Your task to perform on an android device: Show the shopping cart on target. Search for "apple airpods pro" on target, select the first entry, and add it to the cart. Image 0: 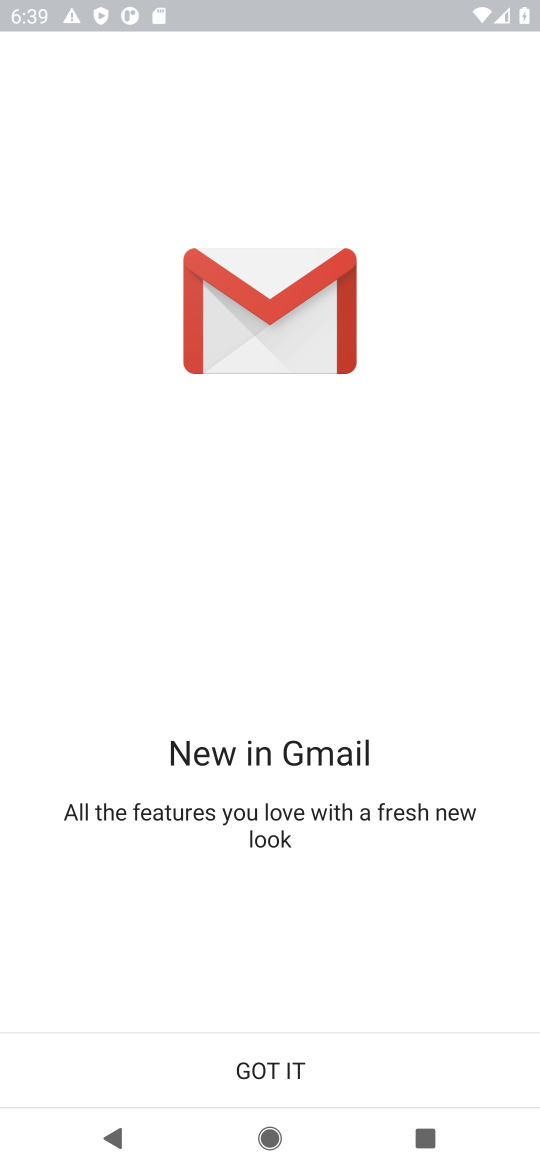
Step 0: press home button
Your task to perform on an android device: Show the shopping cart on target. Search for "apple airpods pro" on target, select the first entry, and add it to the cart. Image 1: 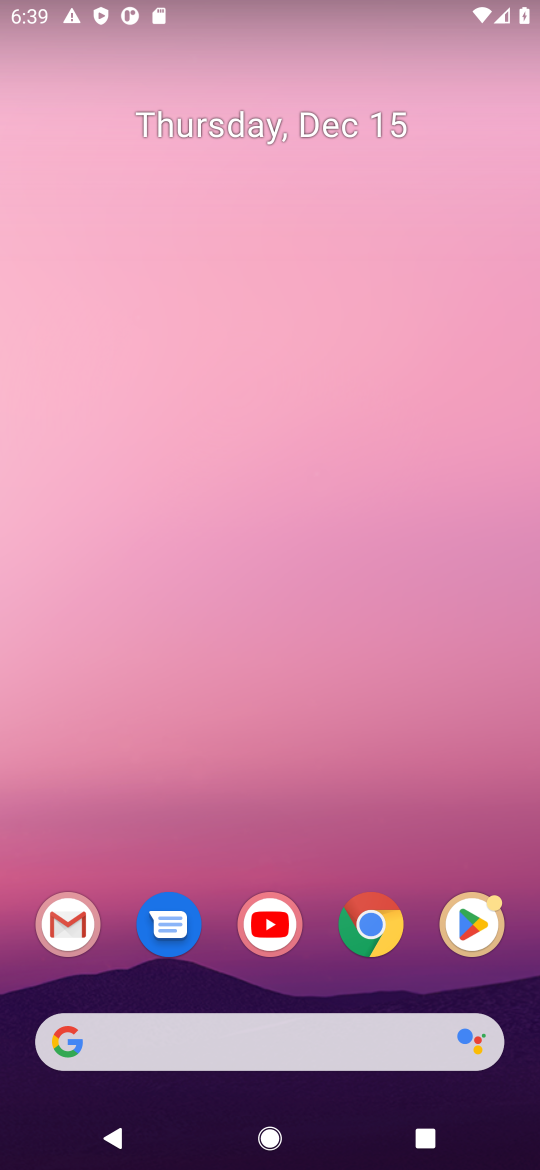
Step 1: click (363, 922)
Your task to perform on an android device: Show the shopping cart on target. Search for "apple airpods pro" on target, select the first entry, and add it to the cart. Image 2: 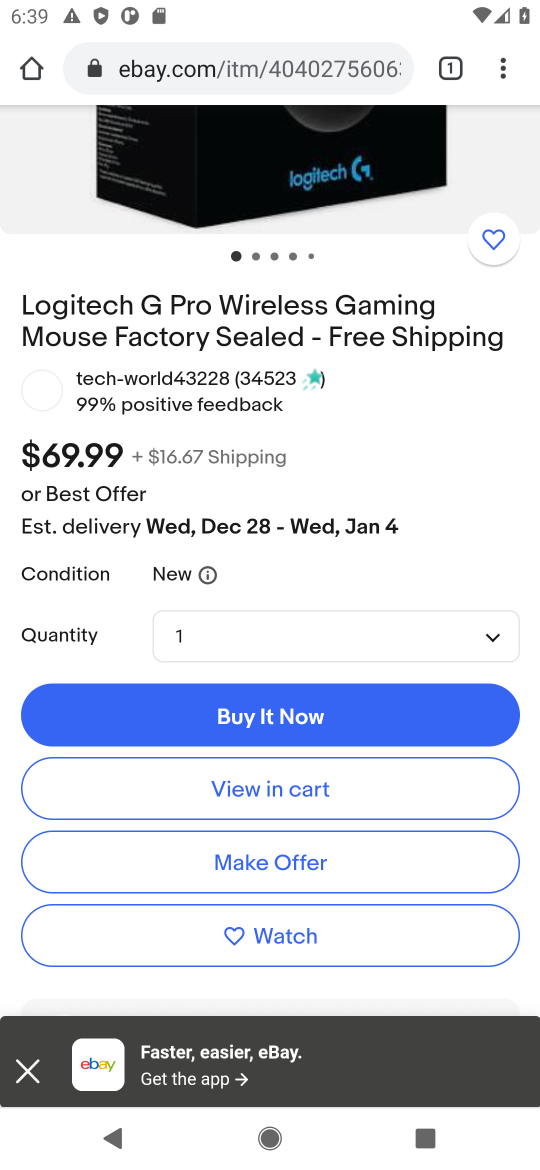
Step 2: click (279, 63)
Your task to perform on an android device: Show the shopping cart on target. Search for "apple airpods pro" on target, select the first entry, and add it to the cart. Image 3: 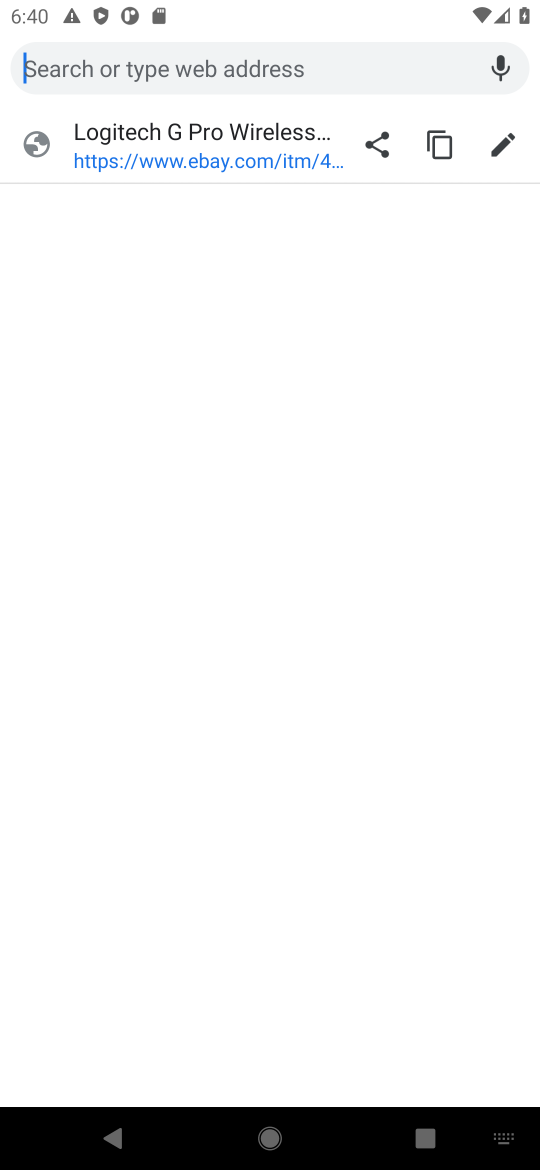
Step 3: type "target"
Your task to perform on an android device: Show the shopping cart on target. Search for "apple airpods pro" on target, select the first entry, and add it to the cart. Image 4: 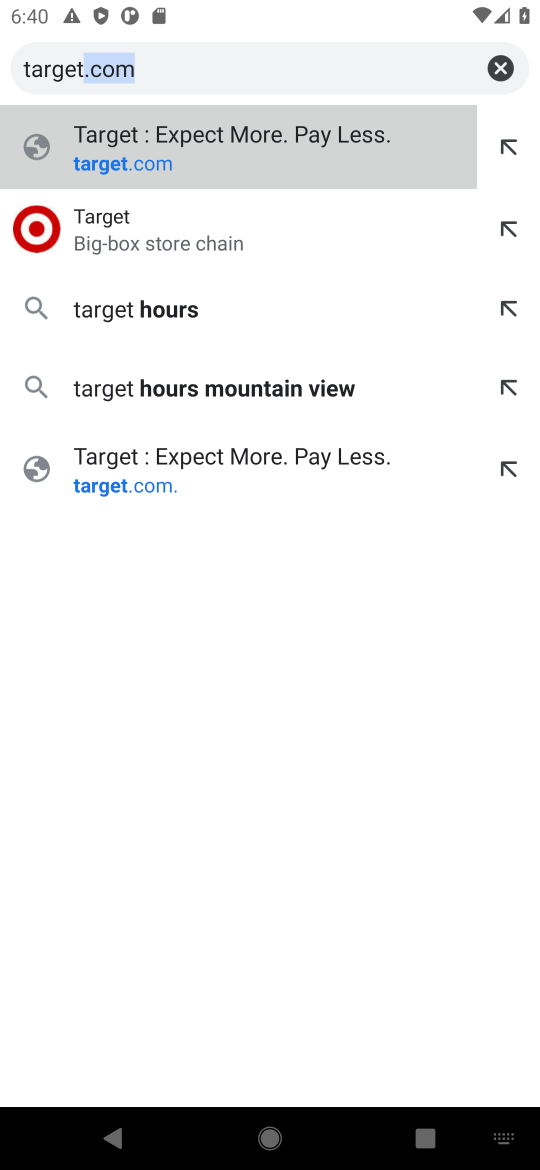
Step 4: click (141, 222)
Your task to perform on an android device: Show the shopping cart on target. Search for "apple airpods pro" on target, select the first entry, and add it to the cart. Image 5: 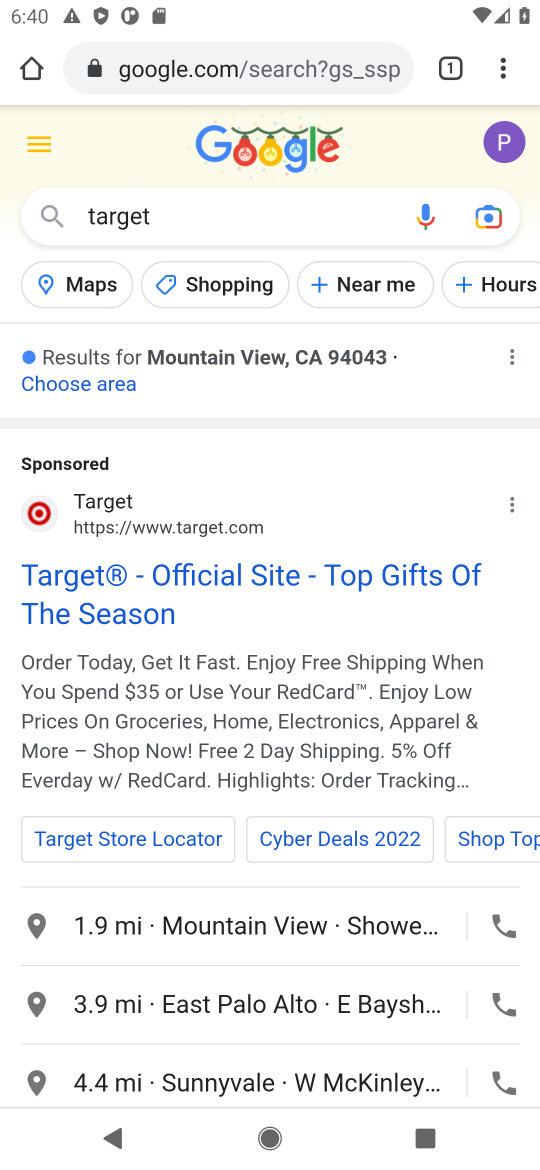
Step 5: click (300, 583)
Your task to perform on an android device: Show the shopping cart on target. Search for "apple airpods pro" on target, select the first entry, and add it to the cart. Image 6: 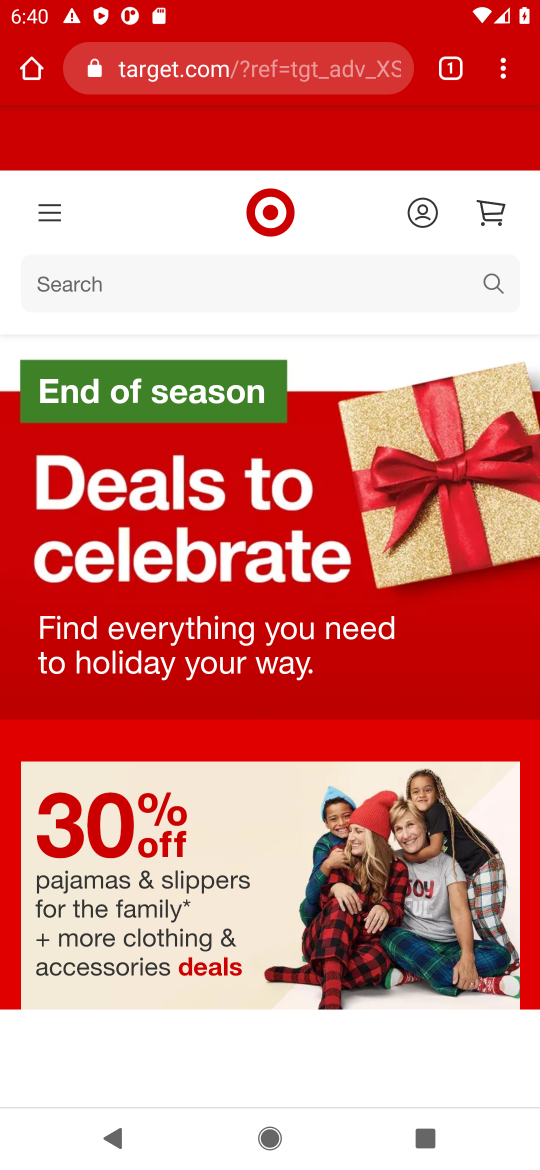
Step 6: click (495, 221)
Your task to perform on an android device: Show the shopping cart on target. Search for "apple airpods pro" on target, select the first entry, and add it to the cart. Image 7: 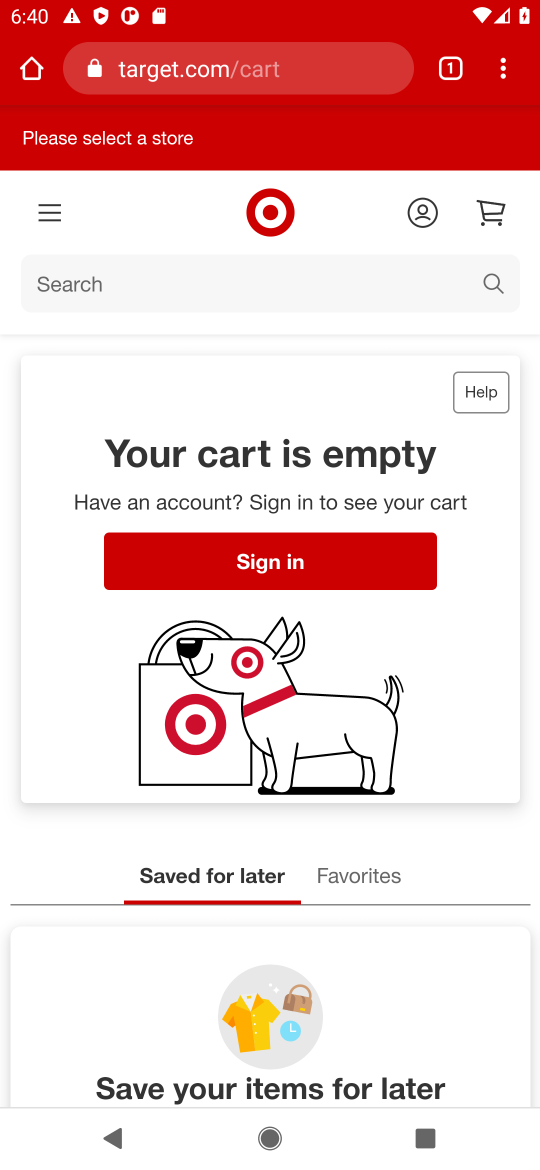
Step 7: click (246, 273)
Your task to perform on an android device: Show the shopping cart on target. Search for "apple airpods pro" on target, select the first entry, and add it to the cart. Image 8: 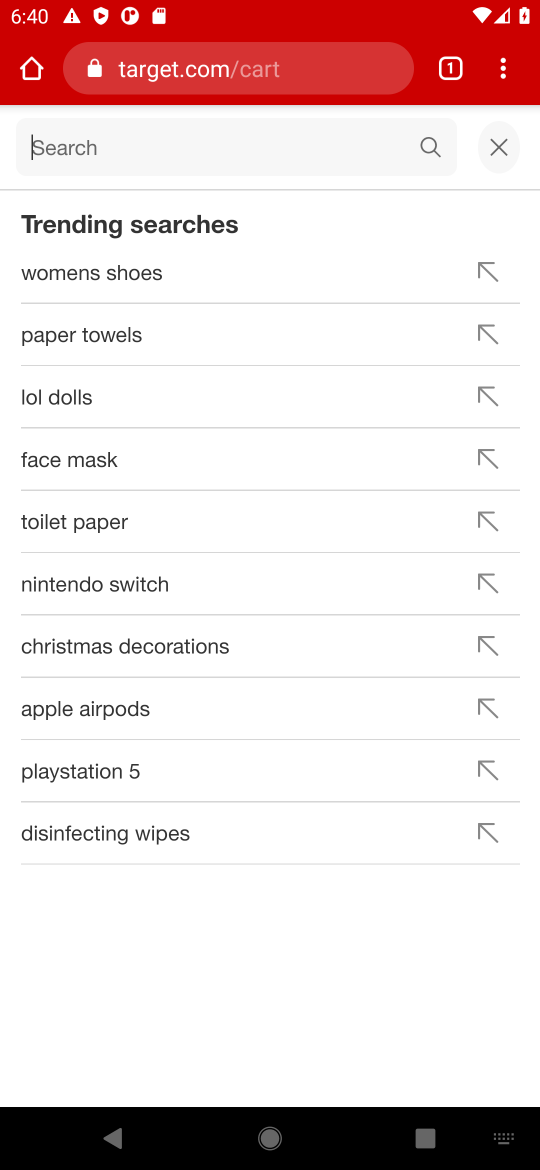
Step 8: type "apple airpods pro"
Your task to perform on an android device: Show the shopping cart on target. Search for "apple airpods pro" on target, select the first entry, and add it to the cart. Image 9: 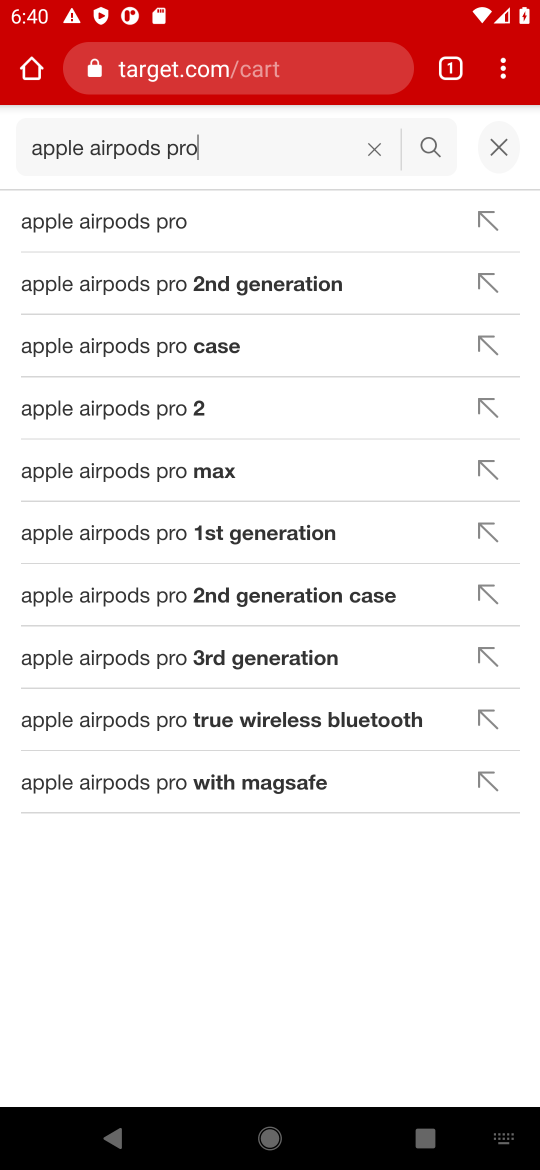
Step 9: click (427, 138)
Your task to perform on an android device: Show the shopping cart on target. Search for "apple airpods pro" on target, select the first entry, and add it to the cart. Image 10: 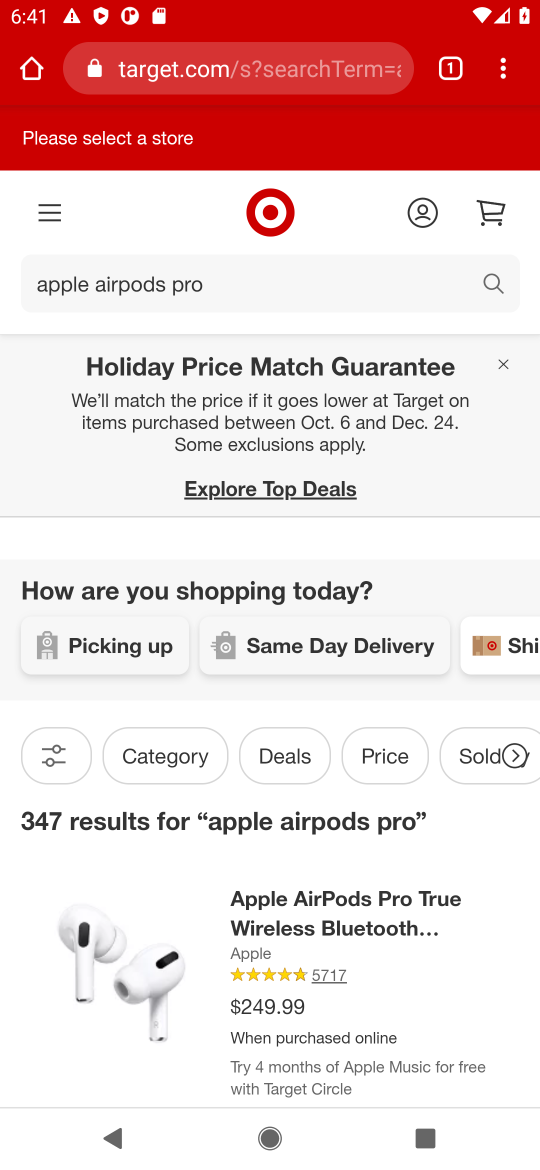
Step 10: click (249, 926)
Your task to perform on an android device: Show the shopping cart on target. Search for "apple airpods pro" on target, select the first entry, and add it to the cart. Image 11: 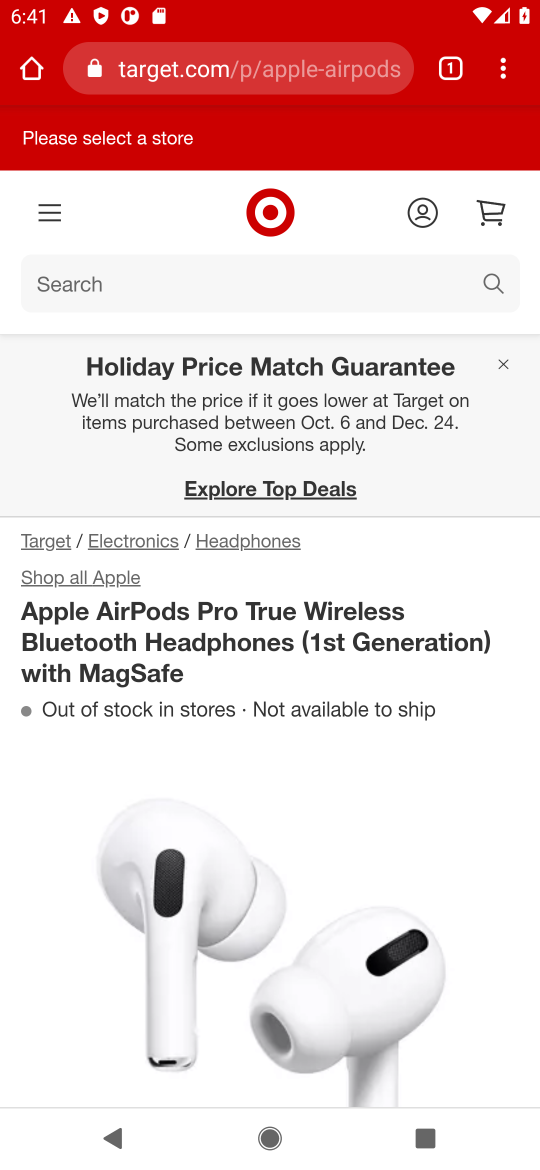
Step 11: drag from (270, 834) to (329, 333)
Your task to perform on an android device: Show the shopping cart on target. Search for "apple airpods pro" on target, select the first entry, and add it to the cart. Image 12: 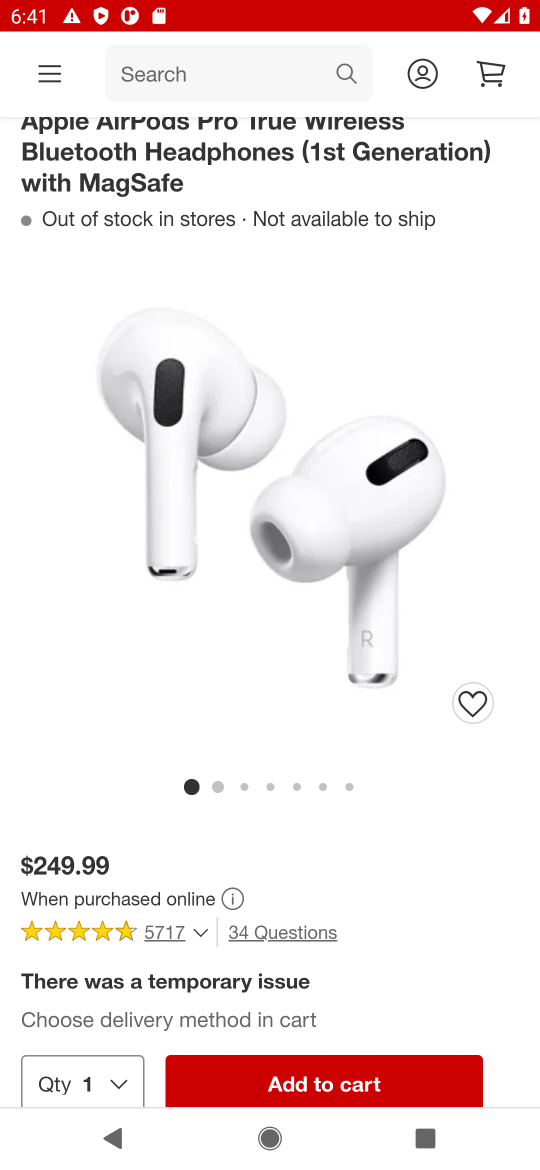
Step 12: click (394, 1077)
Your task to perform on an android device: Show the shopping cart on target. Search for "apple airpods pro" on target, select the first entry, and add it to the cart. Image 13: 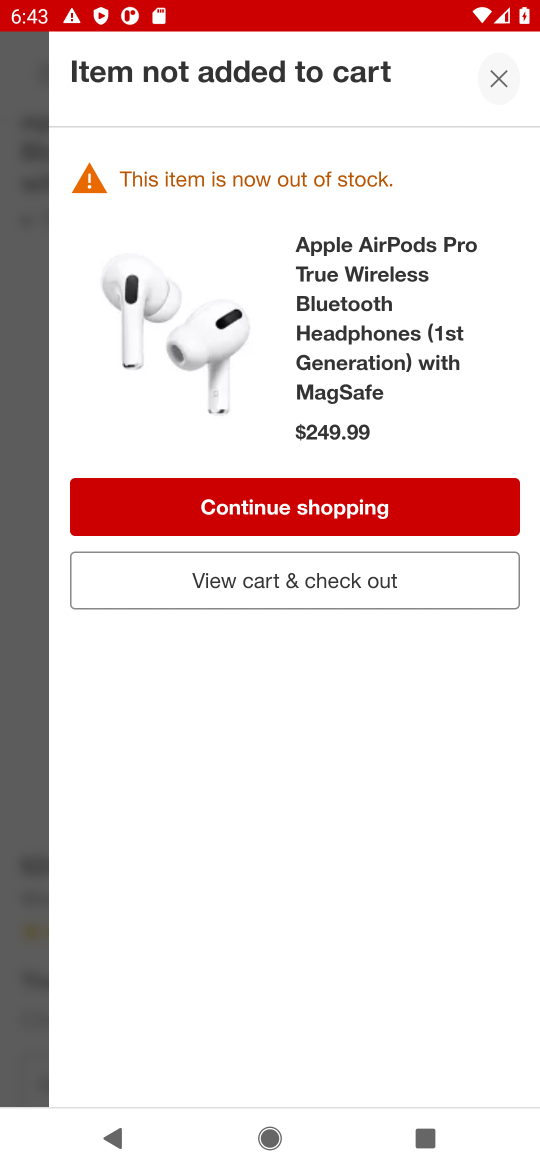
Step 13: task complete